Your task to perform on an android device: Do I have any events this weekend? Image 0: 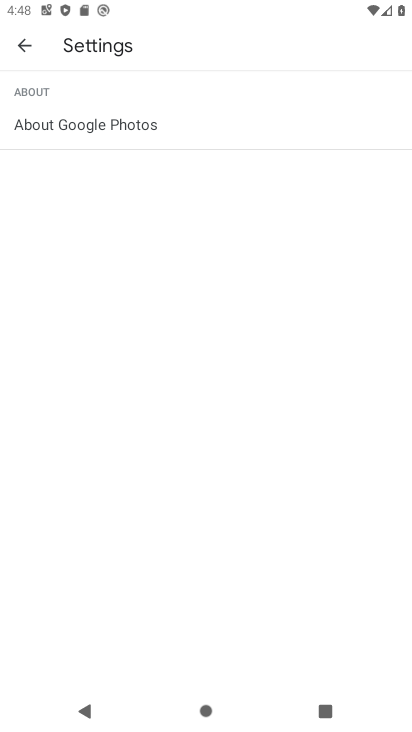
Step 0: press back button
Your task to perform on an android device: Do I have any events this weekend? Image 1: 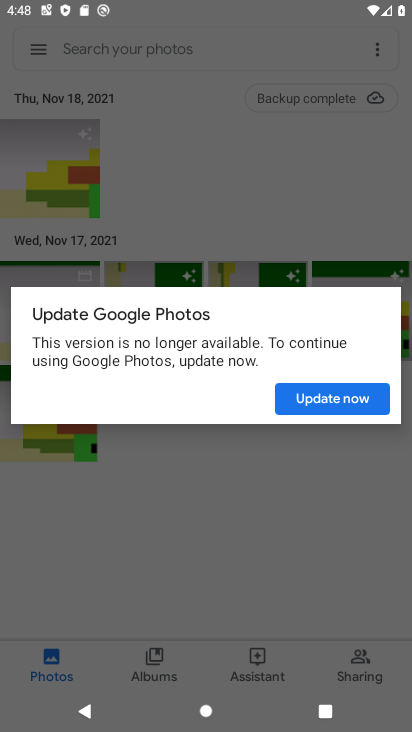
Step 1: press home button
Your task to perform on an android device: Do I have any events this weekend? Image 2: 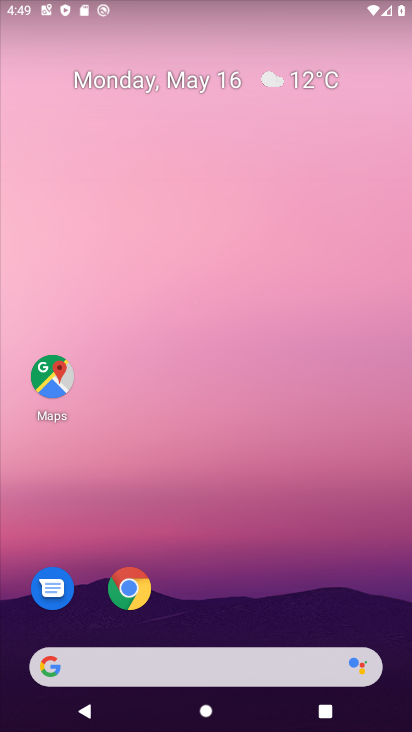
Step 2: drag from (217, 503) to (279, 8)
Your task to perform on an android device: Do I have any events this weekend? Image 3: 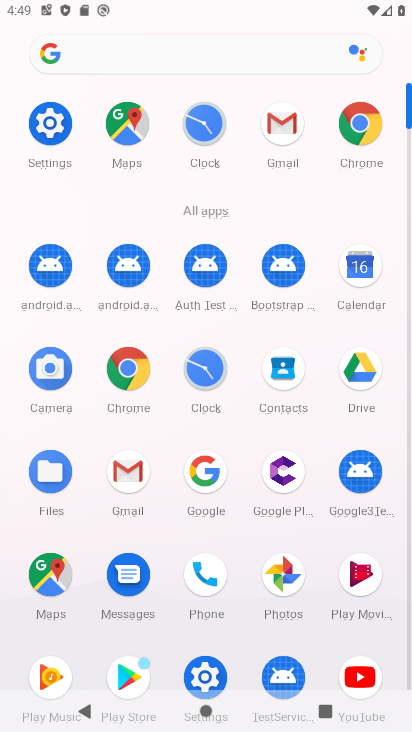
Step 3: click (359, 281)
Your task to perform on an android device: Do I have any events this weekend? Image 4: 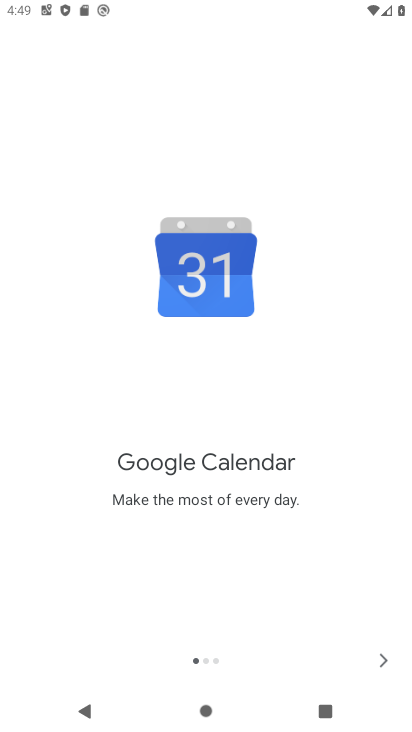
Step 4: click (379, 666)
Your task to perform on an android device: Do I have any events this weekend? Image 5: 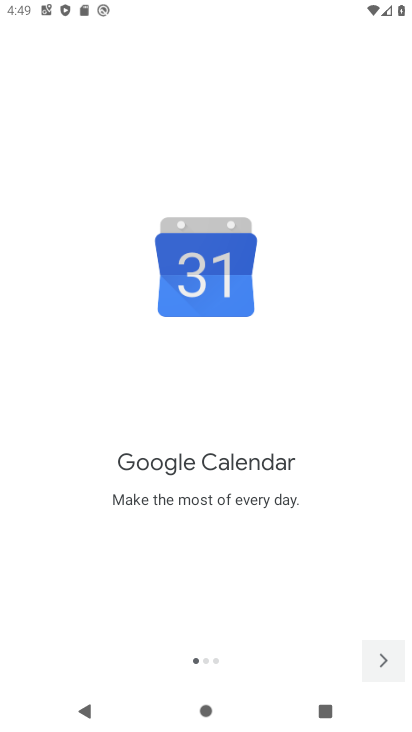
Step 5: click (379, 666)
Your task to perform on an android device: Do I have any events this weekend? Image 6: 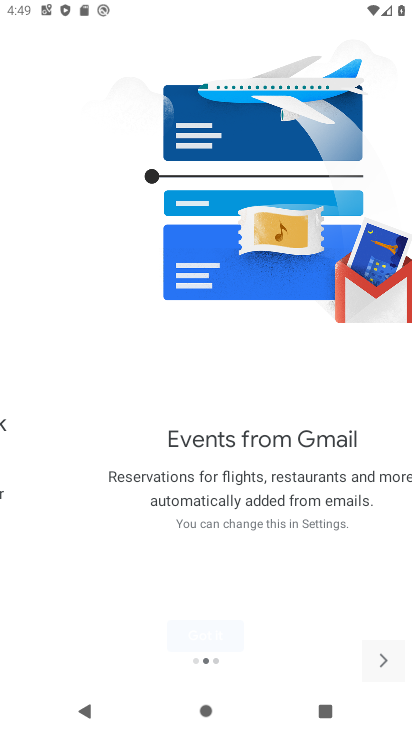
Step 6: click (379, 666)
Your task to perform on an android device: Do I have any events this weekend? Image 7: 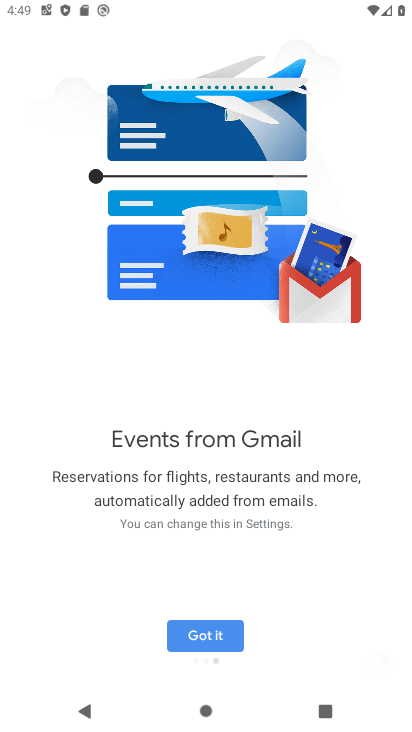
Step 7: click (379, 666)
Your task to perform on an android device: Do I have any events this weekend? Image 8: 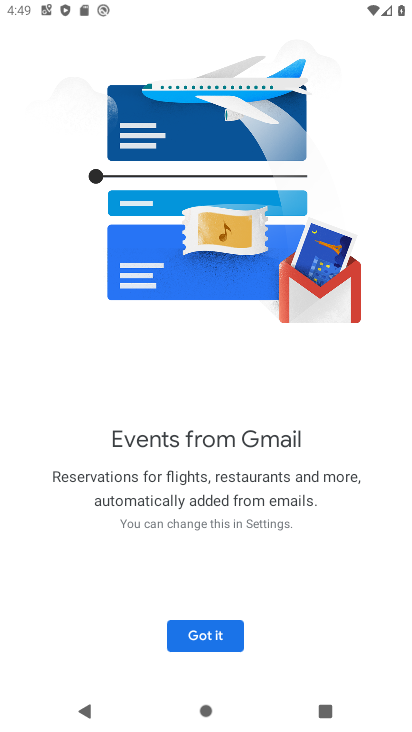
Step 8: click (204, 638)
Your task to perform on an android device: Do I have any events this weekend? Image 9: 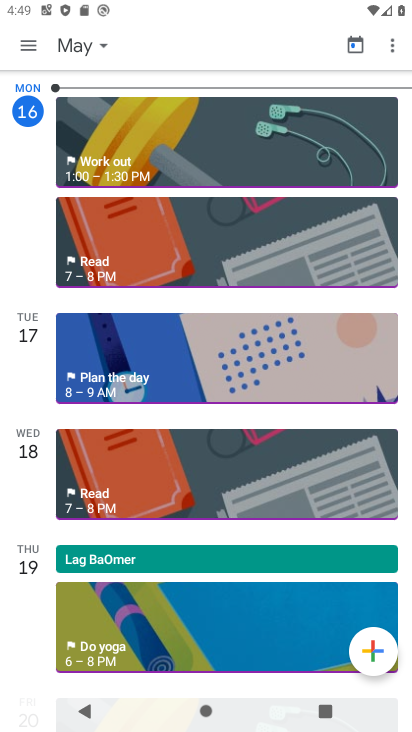
Step 9: drag from (166, 594) to (275, 73)
Your task to perform on an android device: Do I have any events this weekend? Image 10: 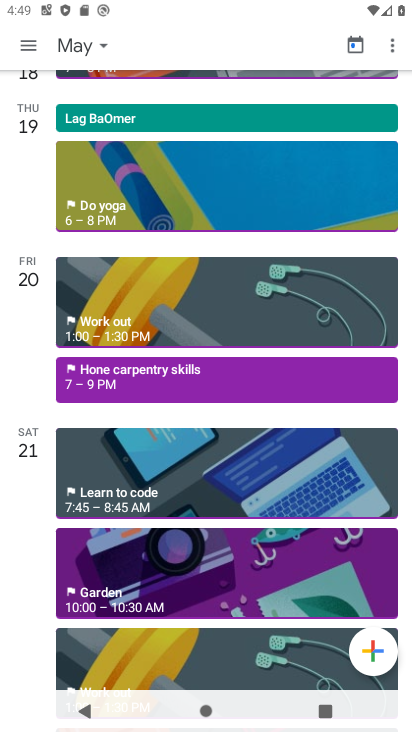
Step 10: click (144, 467)
Your task to perform on an android device: Do I have any events this weekend? Image 11: 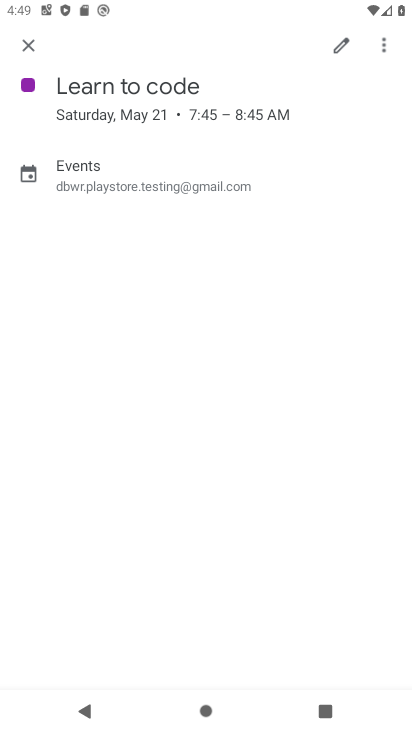
Step 11: task complete